Your task to perform on an android device: Open Amazon Image 0: 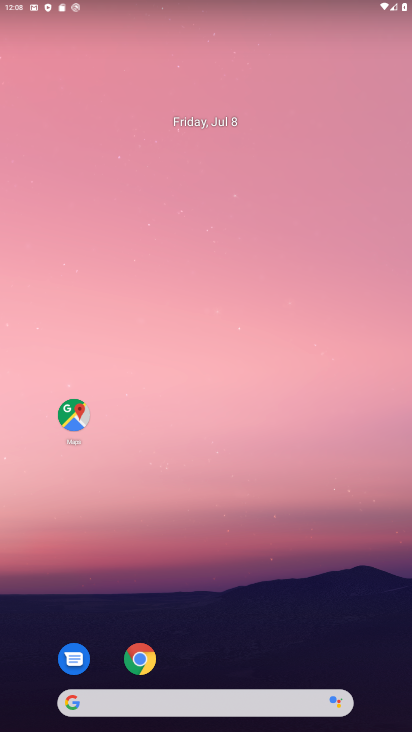
Step 0: drag from (219, 583) to (254, 175)
Your task to perform on an android device: Open Amazon Image 1: 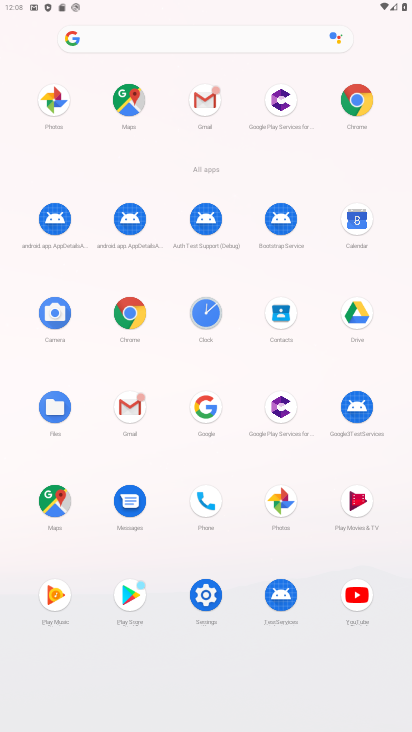
Step 1: click (113, 315)
Your task to perform on an android device: Open Amazon Image 2: 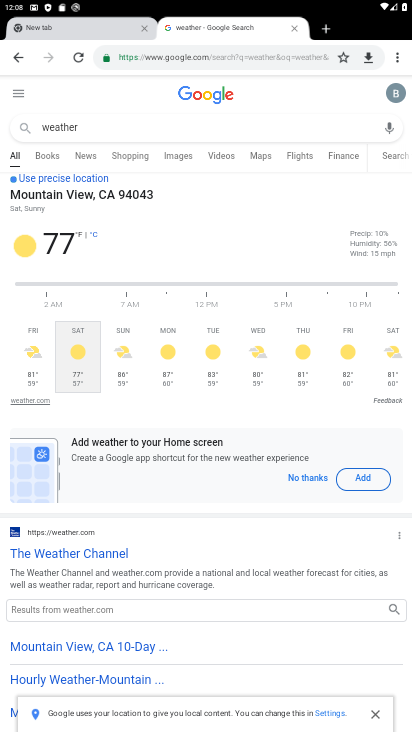
Step 2: click (132, 128)
Your task to perform on an android device: Open Amazon Image 3: 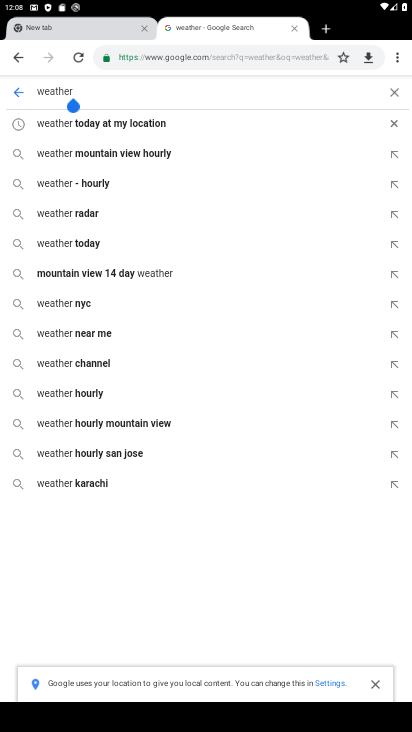
Step 3: click (60, 22)
Your task to perform on an android device: Open Amazon Image 4: 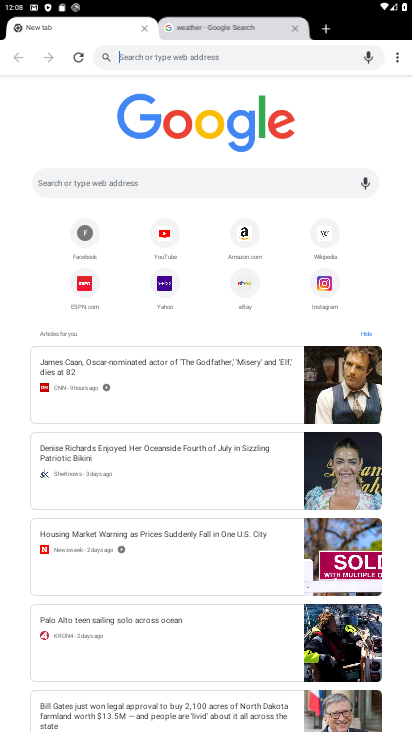
Step 4: click (164, 193)
Your task to perform on an android device: Open Amazon Image 5: 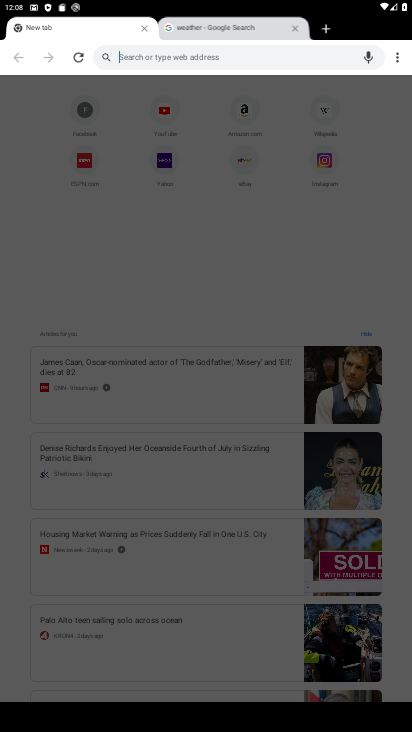
Step 5: type "Amazon"
Your task to perform on an android device: Open Amazon Image 6: 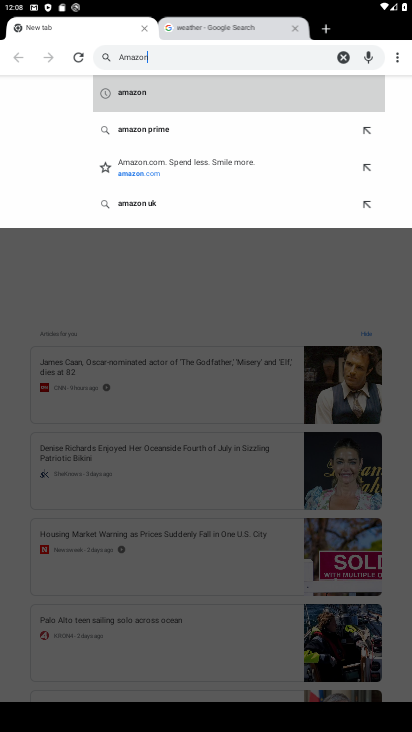
Step 6: type ""
Your task to perform on an android device: Open Amazon Image 7: 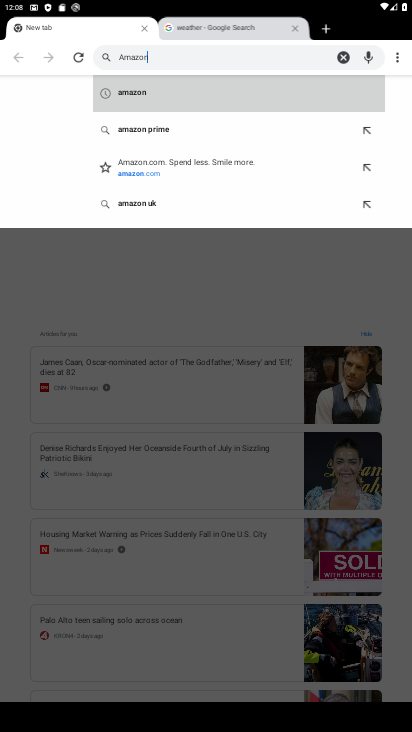
Step 7: click (176, 107)
Your task to perform on an android device: Open Amazon Image 8: 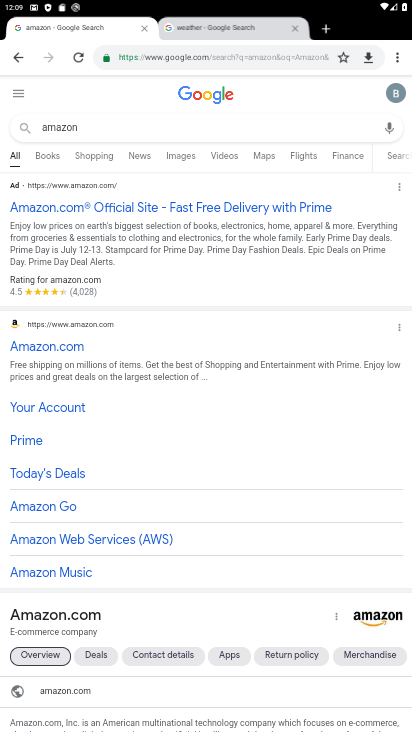
Step 8: click (58, 350)
Your task to perform on an android device: Open Amazon Image 9: 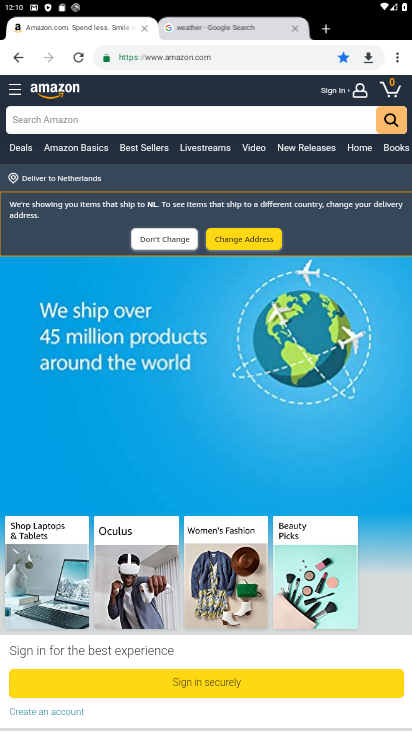
Step 9: task complete